Your task to perform on an android device: show emergency info Image 0: 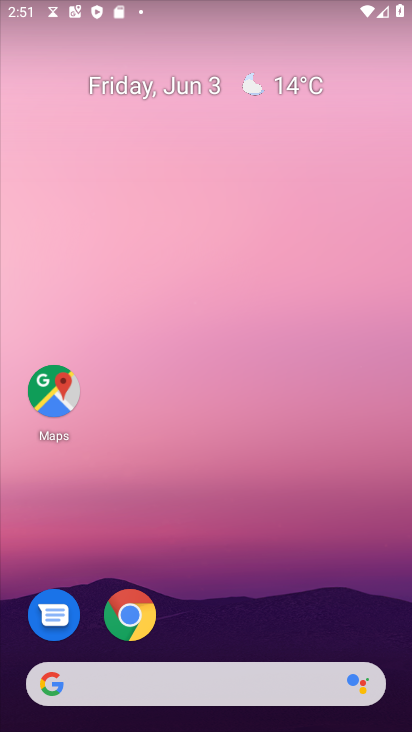
Step 0: drag from (291, 516) to (323, 2)
Your task to perform on an android device: show emergency info Image 1: 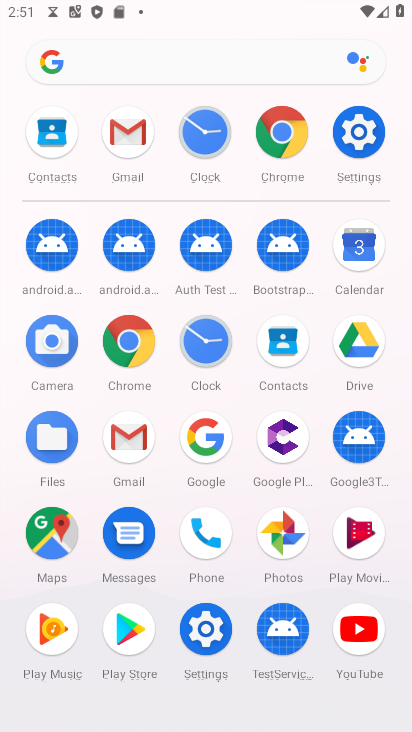
Step 1: click (360, 135)
Your task to perform on an android device: show emergency info Image 2: 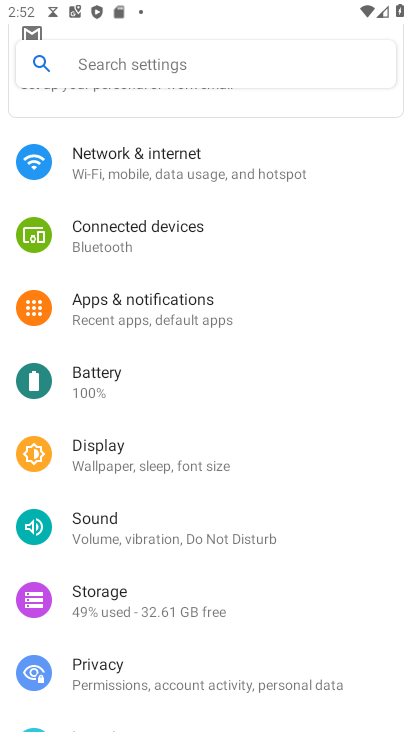
Step 2: drag from (322, 475) to (337, 72)
Your task to perform on an android device: show emergency info Image 3: 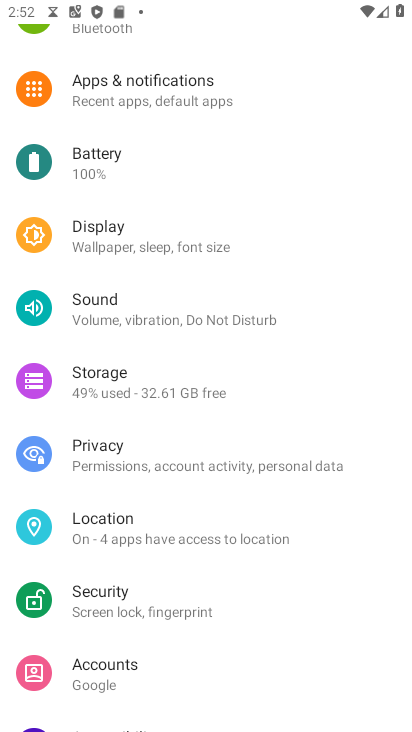
Step 3: drag from (320, 673) to (317, 55)
Your task to perform on an android device: show emergency info Image 4: 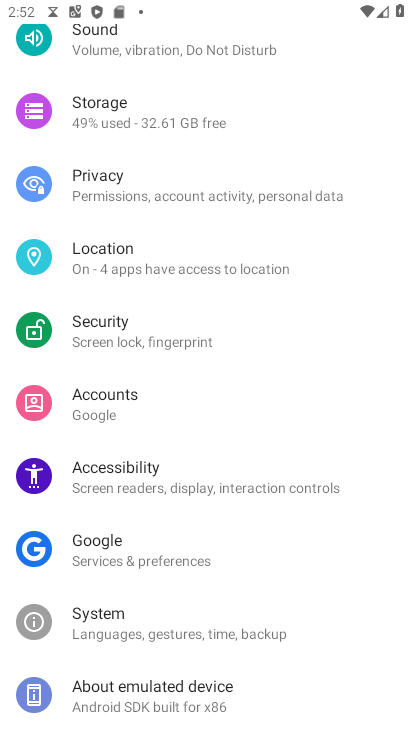
Step 4: click (151, 709)
Your task to perform on an android device: show emergency info Image 5: 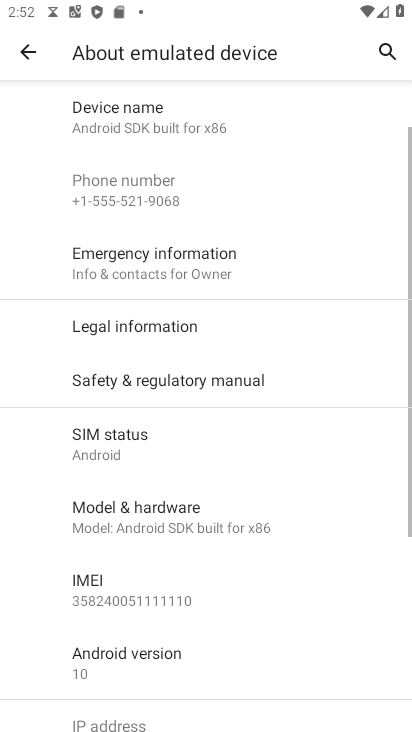
Step 5: click (155, 253)
Your task to perform on an android device: show emergency info Image 6: 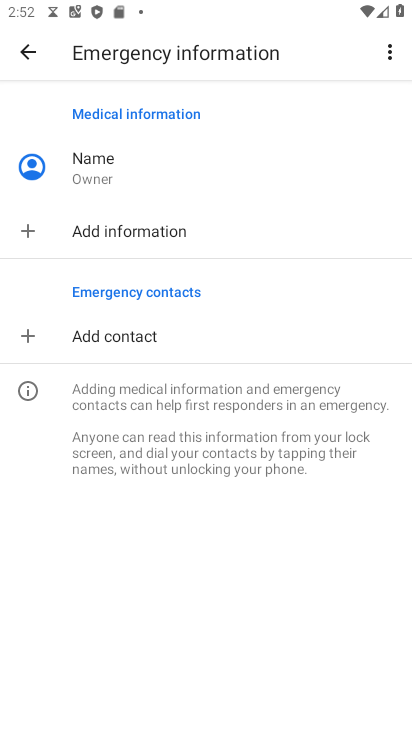
Step 6: task complete